Your task to perform on an android device: make emails show in primary in the gmail app Image 0: 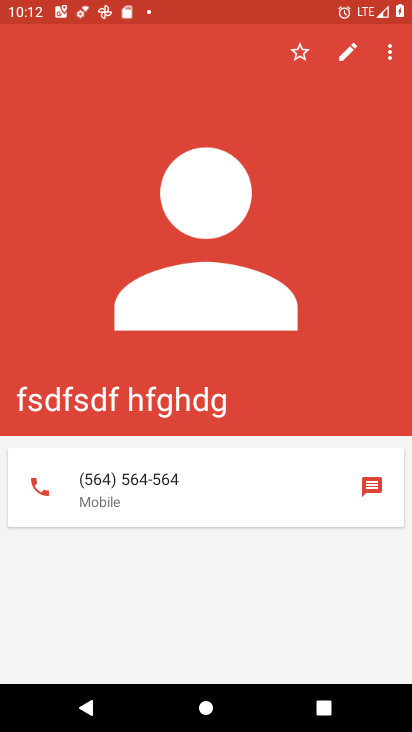
Step 0: press home button
Your task to perform on an android device: make emails show in primary in the gmail app Image 1: 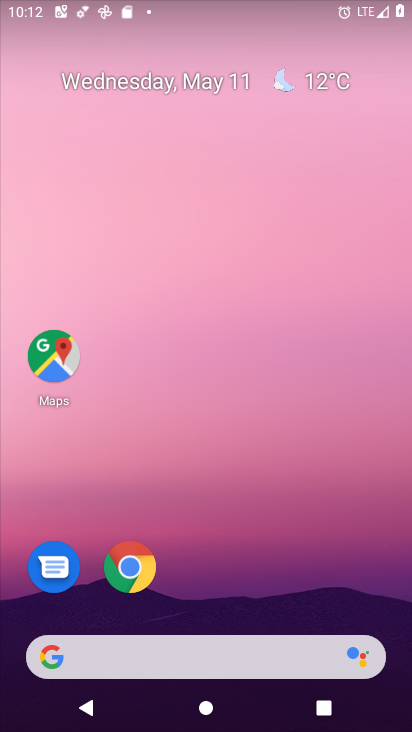
Step 1: drag from (266, 545) to (178, 51)
Your task to perform on an android device: make emails show in primary in the gmail app Image 2: 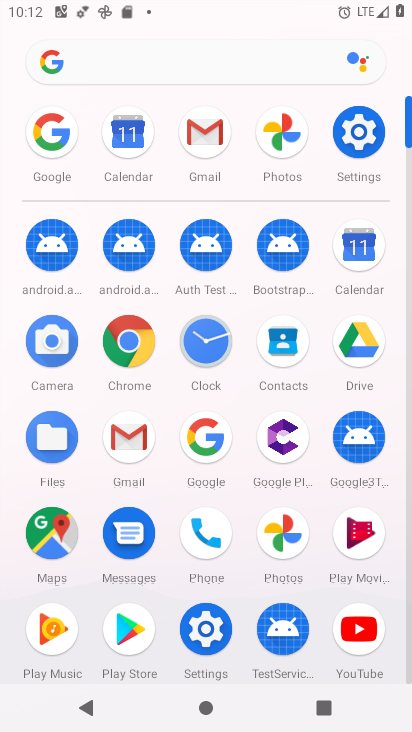
Step 2: click (132, 441)
Your task to perform on an android device: make emails show in primary in the gmail app Image 3: 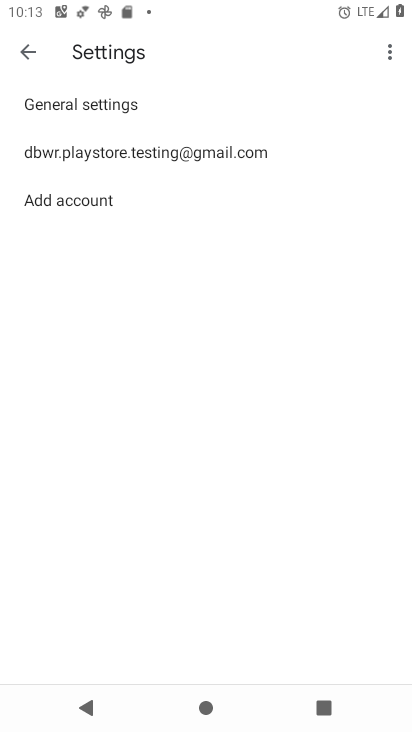
Step 3: click (202, 157)
Your task to perform on an android device: make emails show in primary in the gmail app Image 4: 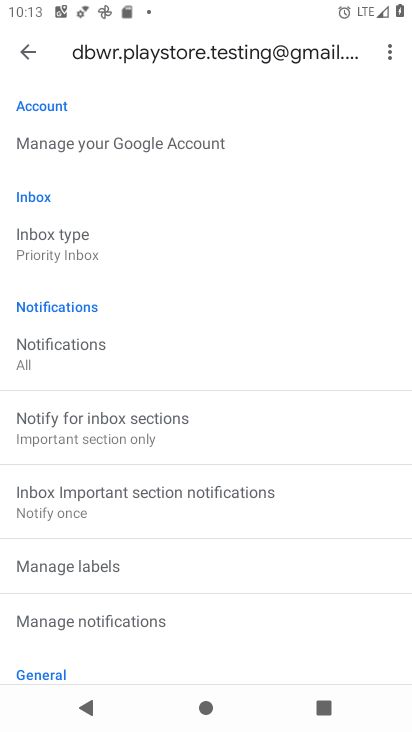
Step 4: drag from (200, 518) to (188, 301)
Your task to perform on an android device: make emails show in primary in the gmail app Image 5: 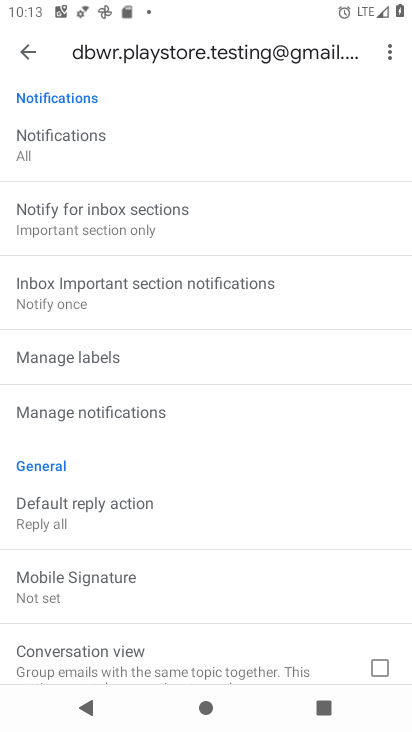
Step 5: drag from (179, 286) to (180, 618)
Your task to perform on an android device: make emails show in primary in the gmail app Image 6: 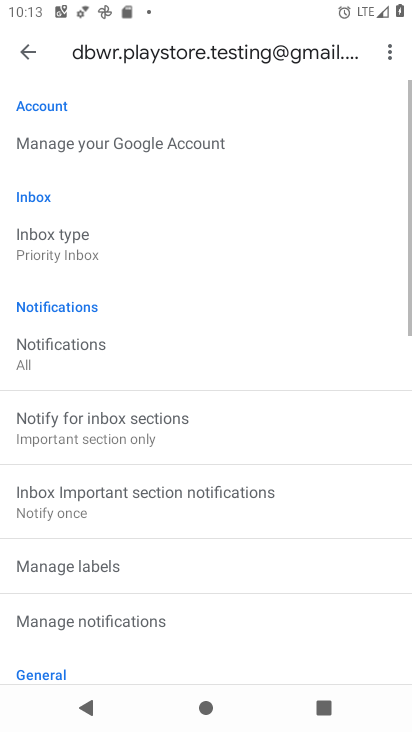
Step 6: click (32, 54)
Your task to perform on an android device: make emails show in primary in the gmail app Image 7: 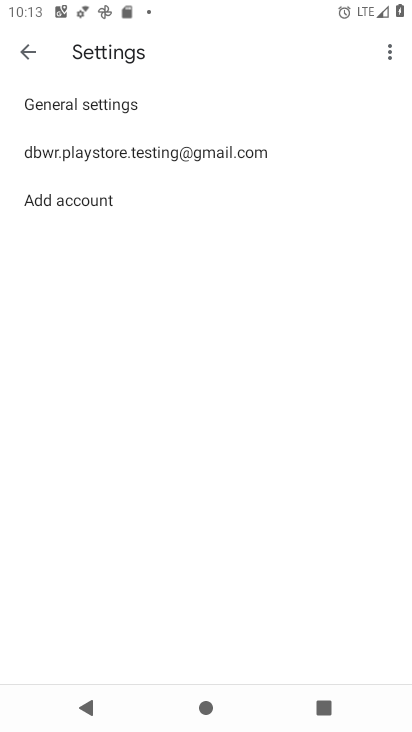
Step 7: click (32, 54)
Your task to perform on an android device: make emails show in primary in the gmail app Image 8: 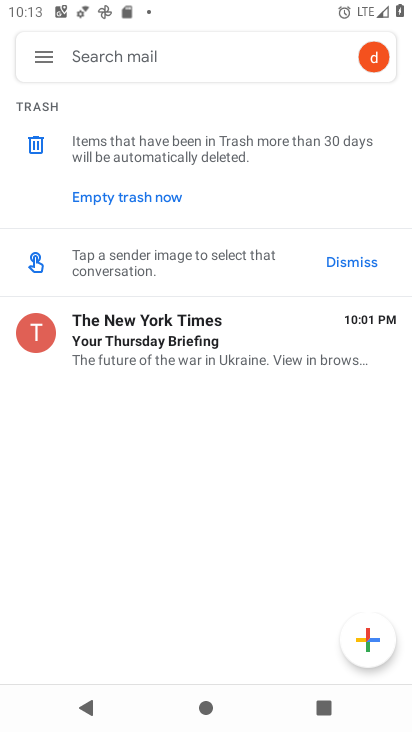
Step 8: click (40, 54)
Your task to perform on an android device: make emails show in primary in the gmail app Image 9: 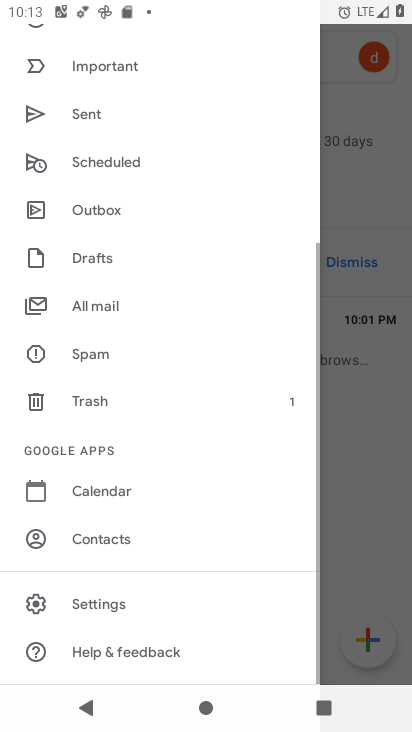
Step 9: task complete